Your task to perform on an android device: Open the phone app and click the voicemail tab. Image 0: 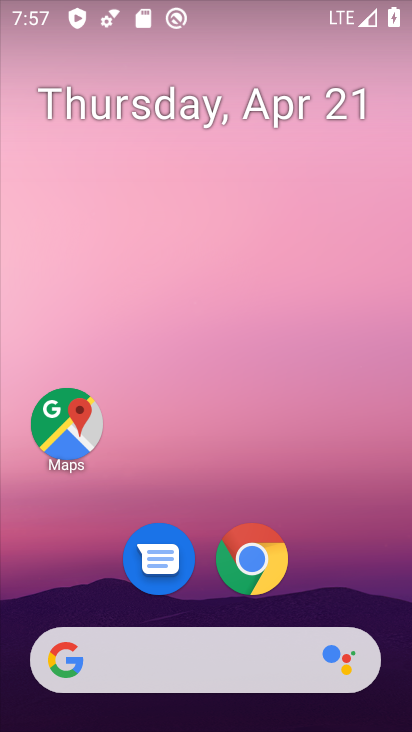
Step 0: drag from (386, 544) to (366, 49)
Your task to perform on an android device: Open the phone app and click the voicemail tab. Image 1: 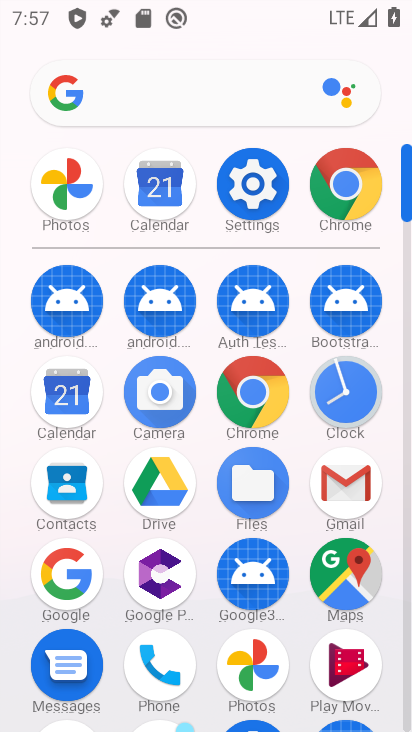
Step 1: click (136, 674)
Your task to perform on an android device: Open the phone app and click the voicemail tab. Image 2: 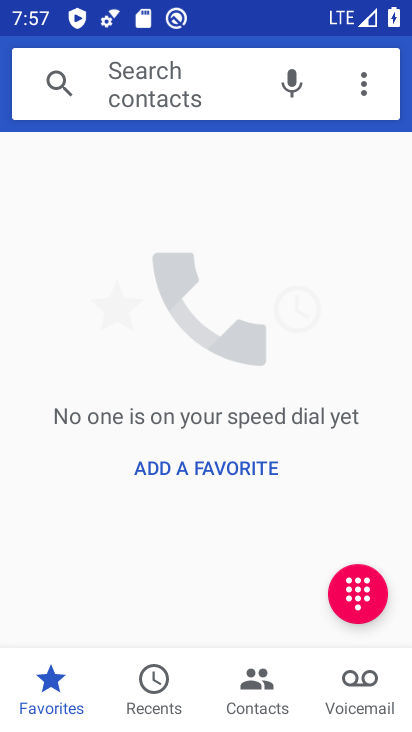
Step 2: click (372, 699)
Your task to perform on an android device: Open the phone app and click the voicemail tab. Image 3: 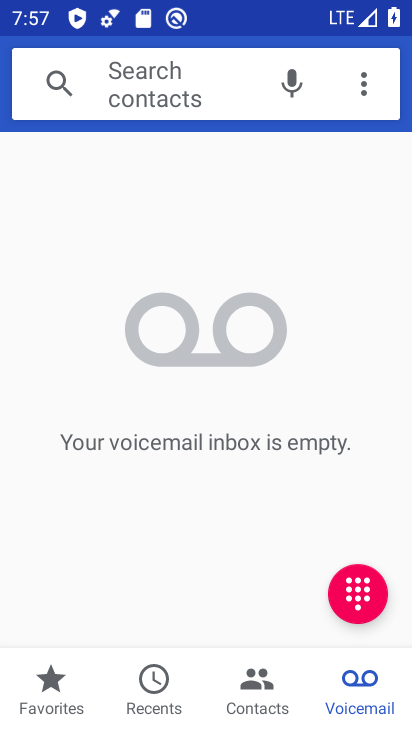
Step 3: task complete